Your task to perform on an android device: open chrome and create a bookmark for the current page Image 0: 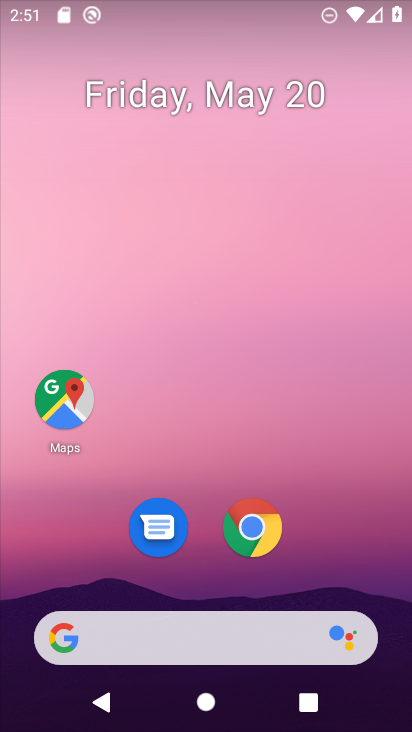
Step 0: click (253, 529)
Your task to perform on an android device: open chrome and create a bookmark for the current page Image 1: 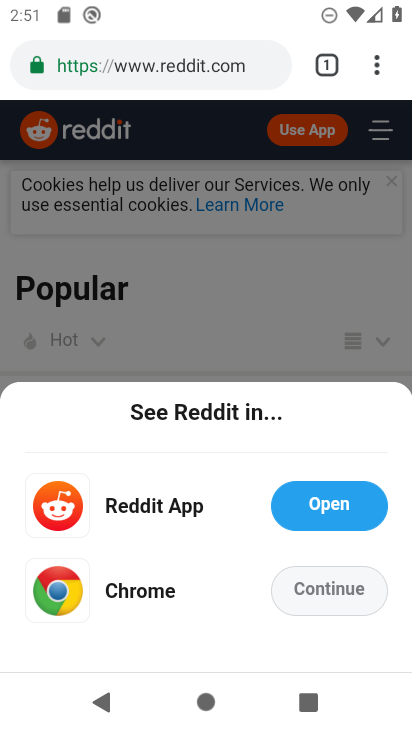
Step 1: task complete